Your task to perform on an android device: open app "VLC for Android" Image 0: 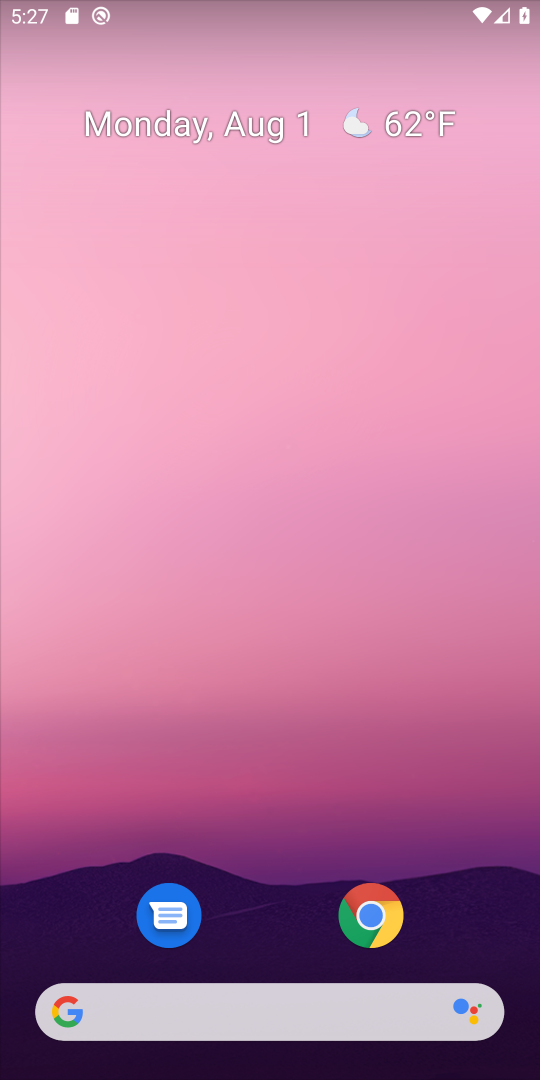
Step 0: drag from (261, 955) to (347, 40)
Your task to perform on an android device: open app "VLC for Android" Image 1: 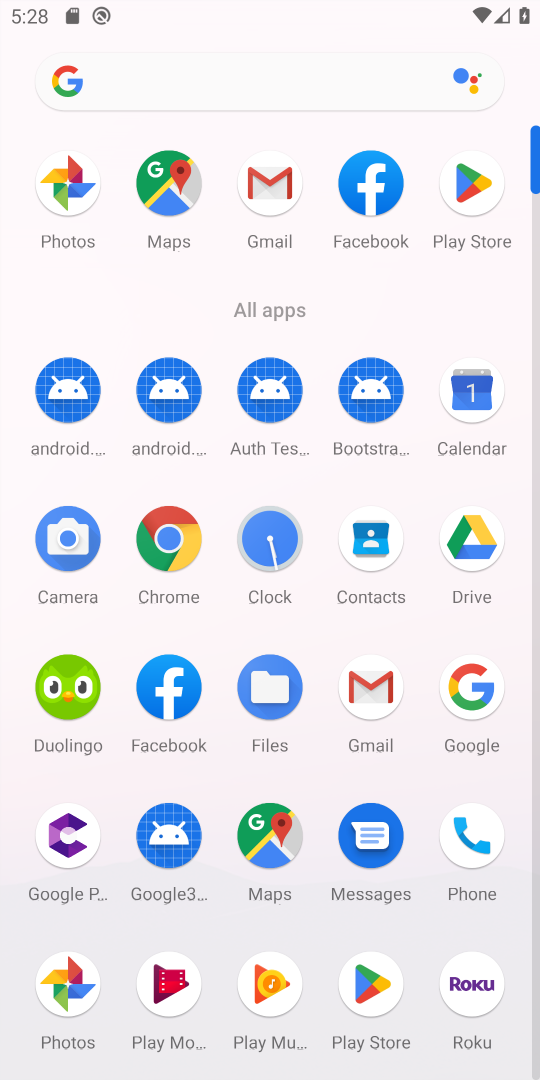
Step 1: click (474, 155)
Your task to perform on an android device: open app "VLC for Android" Image 2: 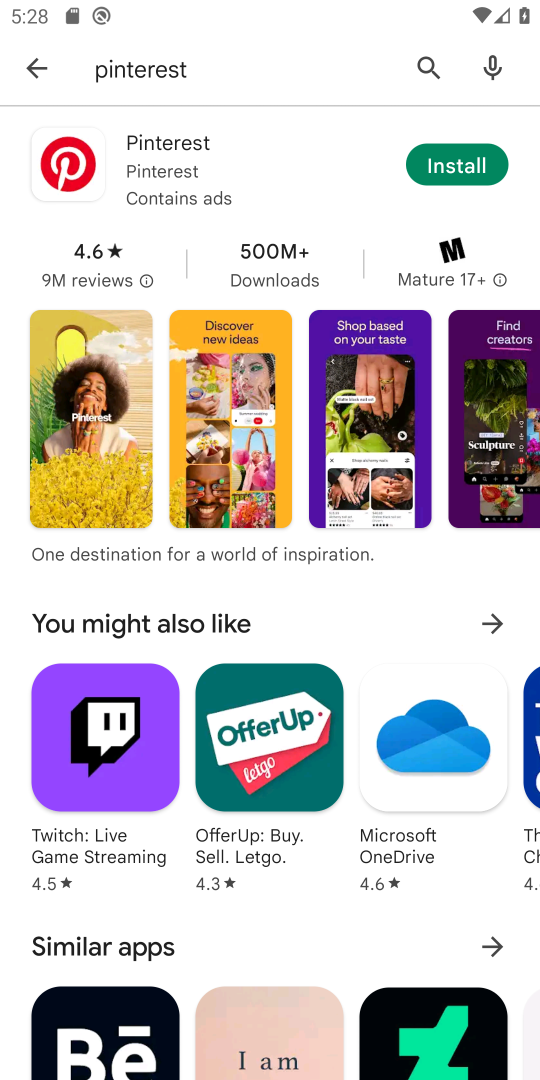
Step 2: click (418, 56)
Your task to perform on an android device: open app "VLC for Android" Image 3: 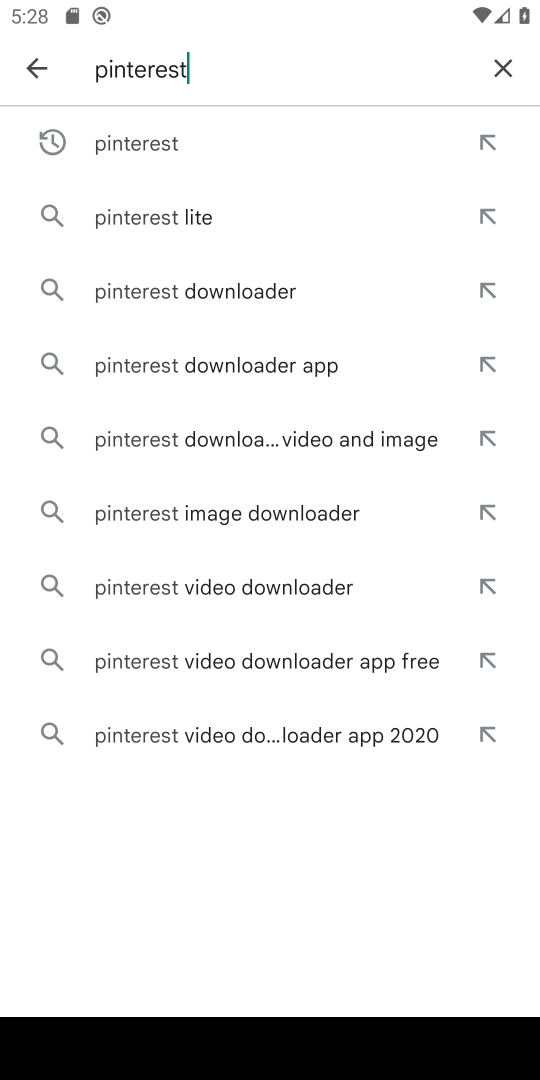
Step 3: click (508, 57)
Your task to perform on an android device: open app "VLC for Android" Image 4: 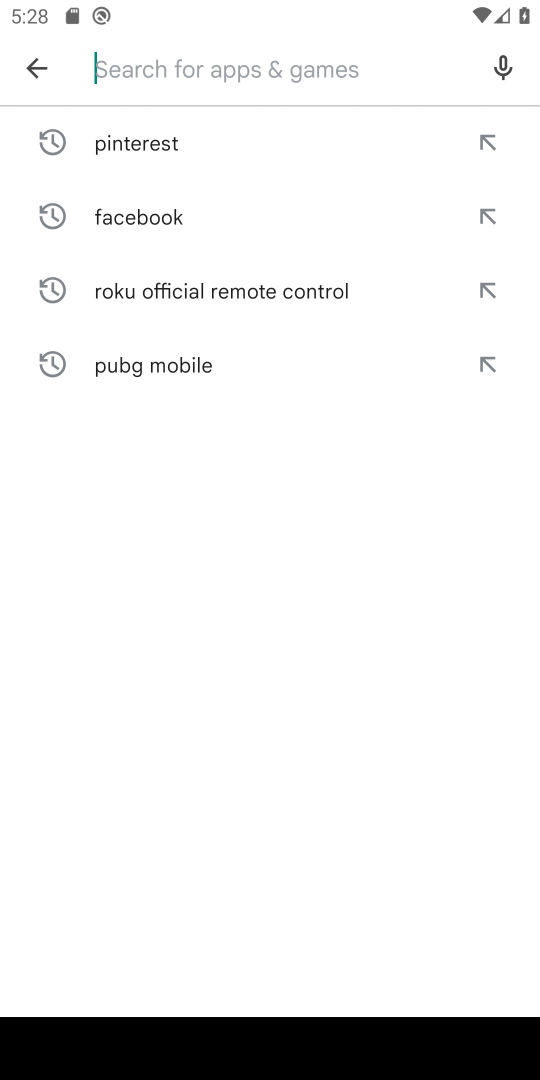
Step 4: click (162, 81)
Your task to perform on an android device: open app "VLC for Android" Image 5: 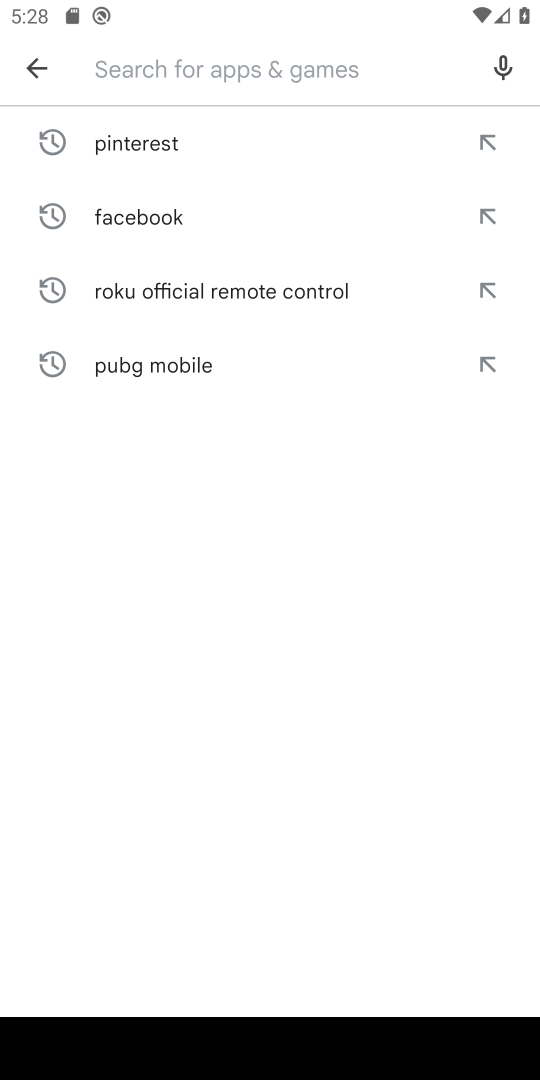
Step 5: type "VLC for Android"
Your task to perform on an android device: open app "VLC for Android" Image 6: 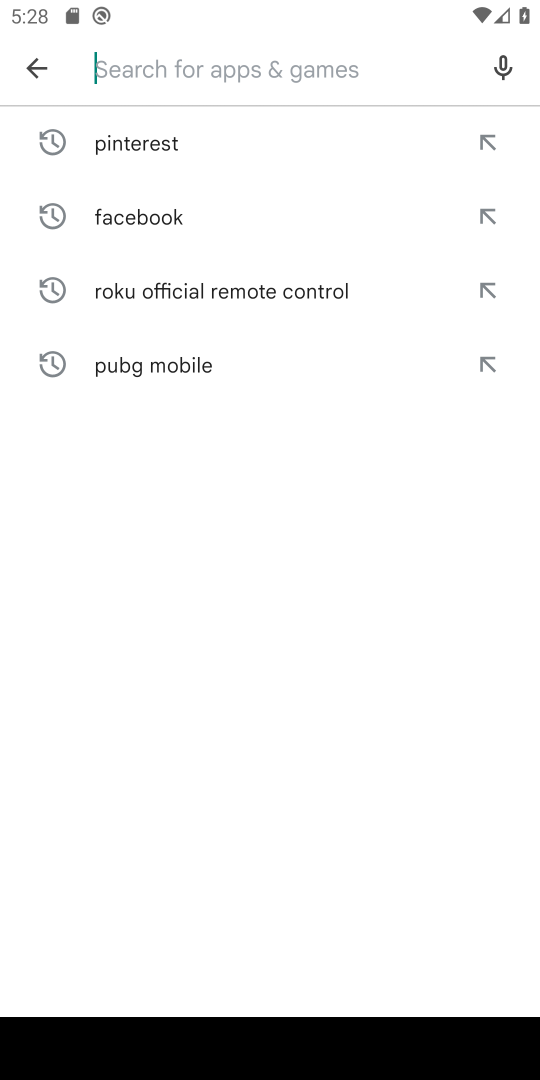
Step 6: click (265, 532)
Your task to perform on an android device: open app "VLC for Android" Image 7: 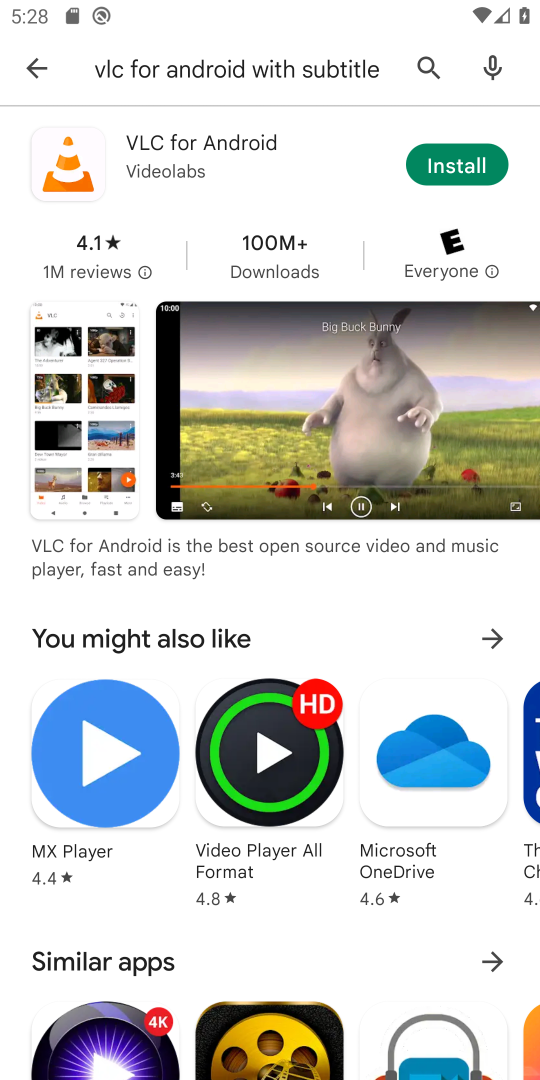
Step 7: task complete